Your task to perform on an android device: Do I have any events this weekend? Image 0: 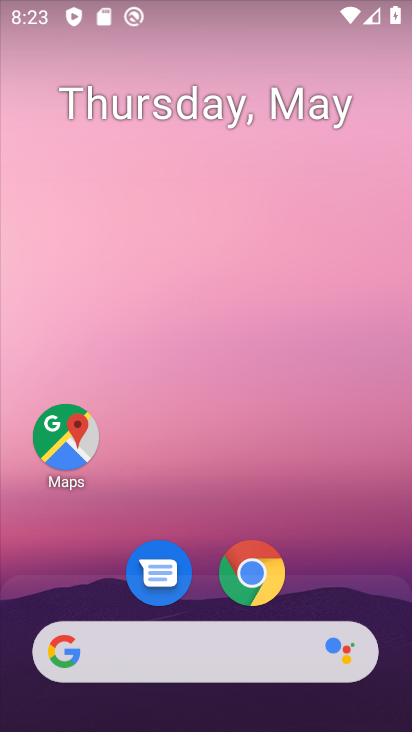
Step 0: drag from (324, 583) to (321, 239)
Your task to perform on an android device: Do I have any events this weekend? Image 1: 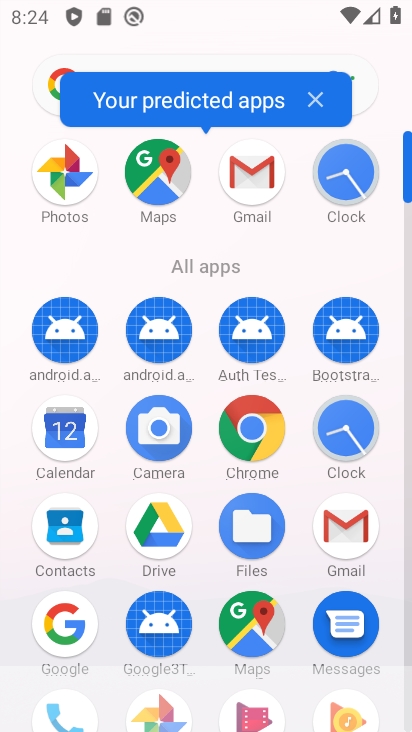
Step 1: click (70, 460)
Your task to perform on an android device: Do I have any events this weekend? Image 2: 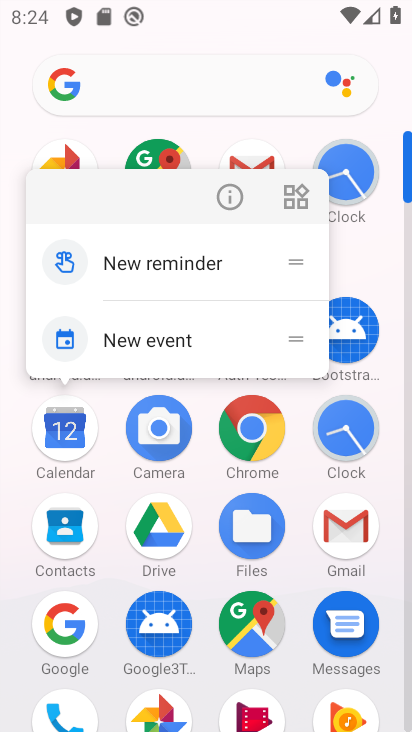
Step 2: click (77, 432)
Your task to perform on an android device: Do I have any events this weekend? Image 3: 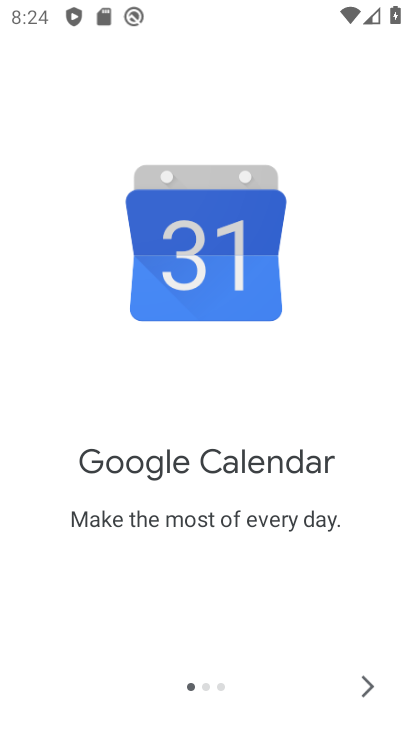
Step 3: click (359, 697)
Your task to perform on an android device: Do I have any events this weekend? Image 4: 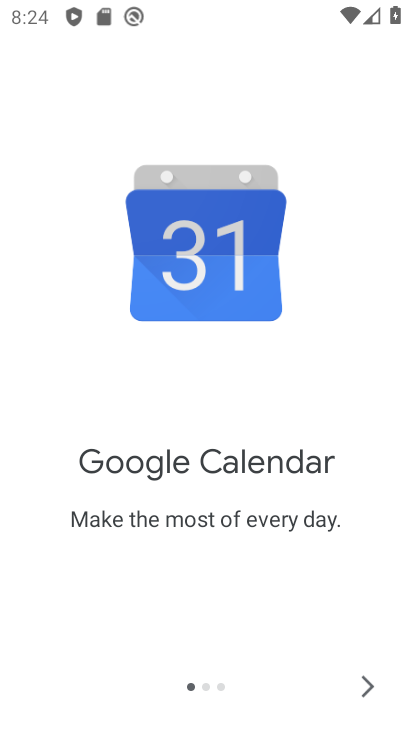
Step 4: click (359, 697)
Your task to perform on an android device: Do I have any events this weekend? Image 5: 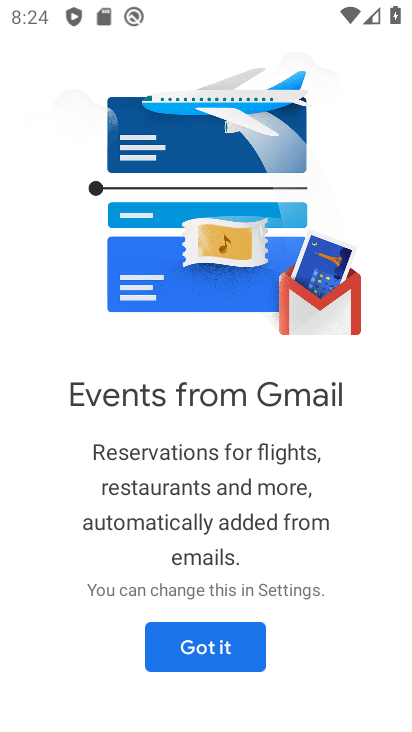
Step 5: click (240, 661)
Your task to perform on an android device: Do I have any events this weekend? Image 6: 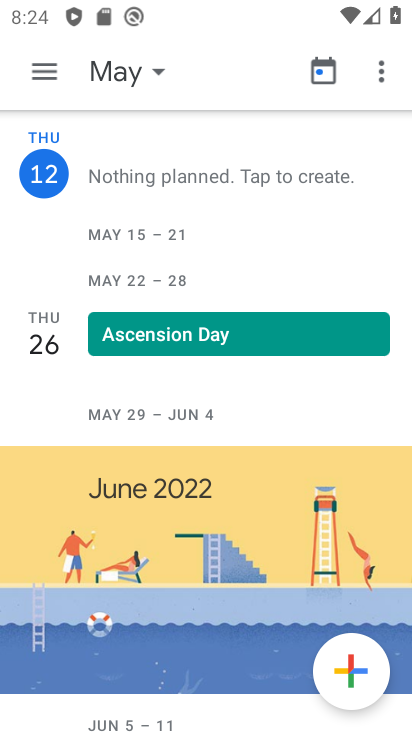
Step 6: click (115, 77)
Your task to perform on an android device: Do I have any events this weekend? Image 7: 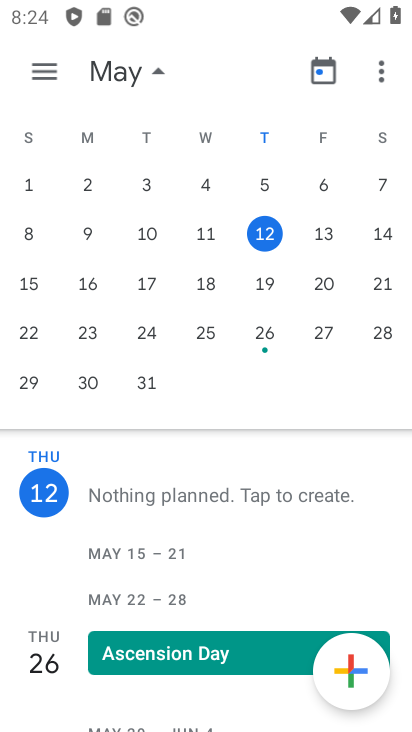
Step 7: click (338, 230)
Your task to perform on an android device: Do I have any events this weekend? Image 8: 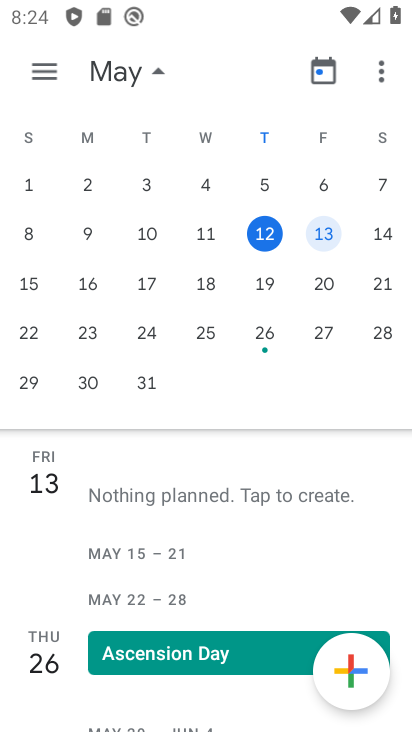
Step 8: click (385, 235)
Your task to perform on an android device: Do I have any events this weekend? Image 9: 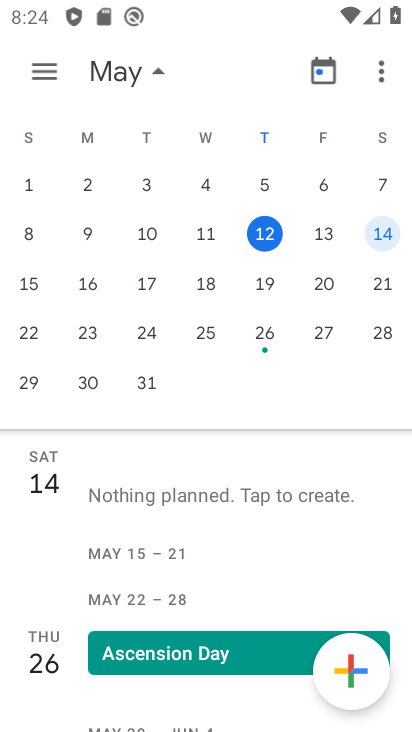
Step 9: click (25, 285)
Your task to perform on an android device: Do I have any events this weekend? Image 10: 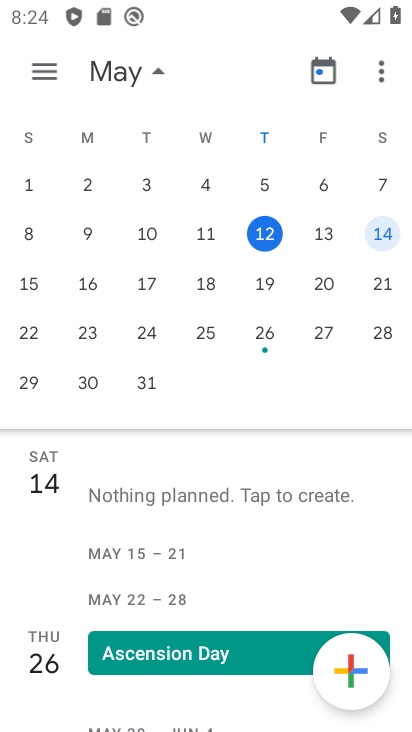
Step 10: click (21, 283)
Your task to perform on an android device: Do I have any events this weekend? Image 11: 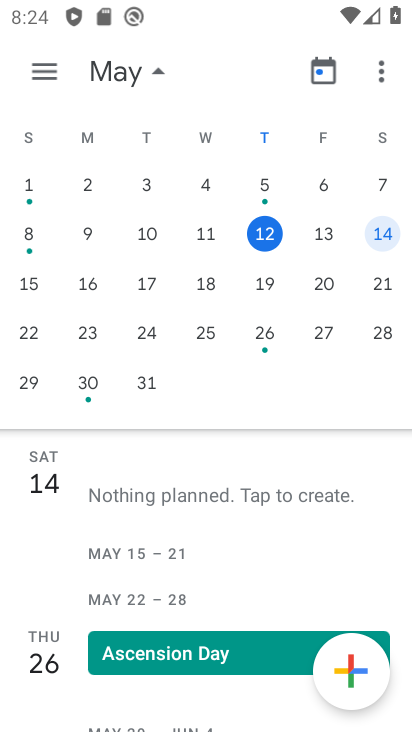
Step 11: click (29, 286)
Your task to perform on an android device: Do I have any events this weekend? Image 12: 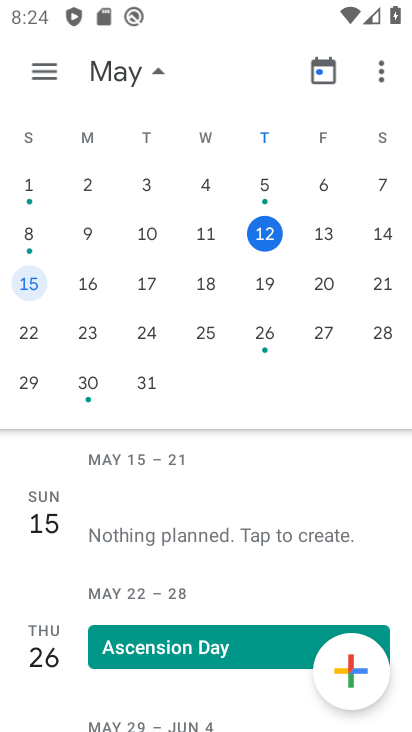
Step 12: task complete